Your task to perform on an android device: Open maps Image 0: 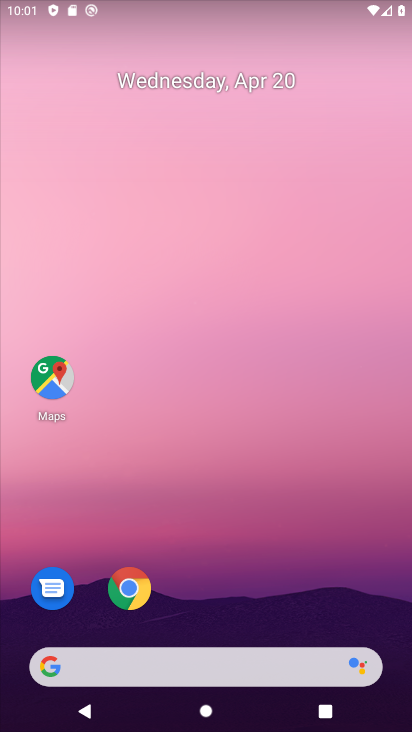
Step 0: drag from (200, 609) to (173, 205)
Your task to perform on an android device: Open maps Image 1: 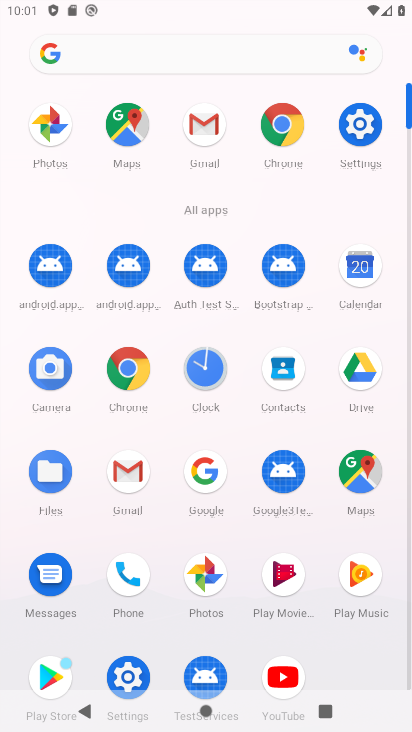
Step 1: click (363, 469)
Your task to perform on an android device: Open maps Image 2: 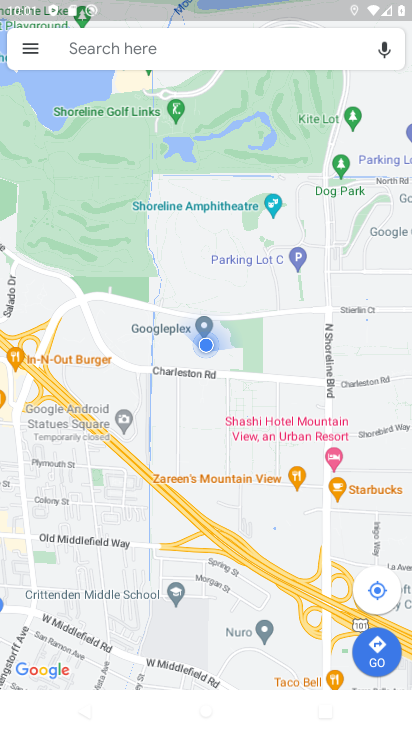
Step 2: task complete